Your task to perform on an android device: View the shopping cart on target. Search for asus zenbook on target, select the first entry, and add it to the cart. Image 0: 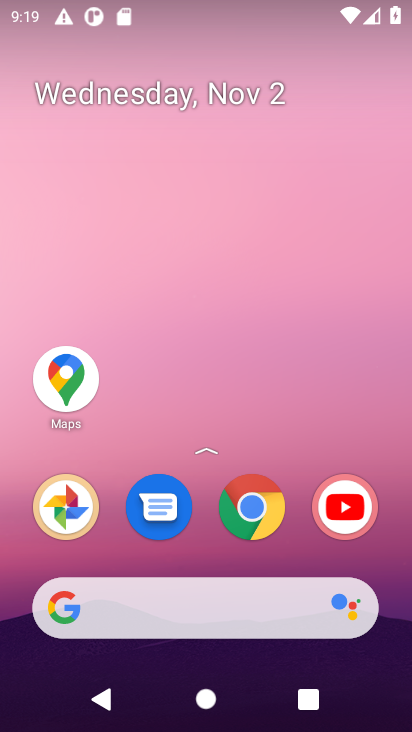
Step 0: click (187, 596)
Your task to perform on an android device: View the shopping cart on target. Search for asus zenbook on target, select the first entry, and add it to the cart. Image 1: 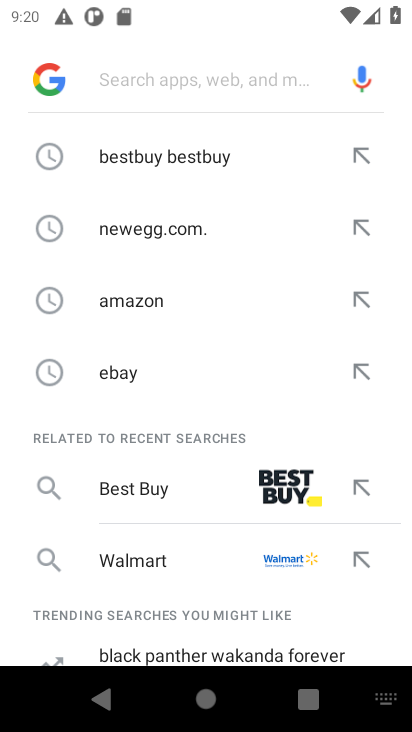
Step 1: type "ausu zenbook"
Your task to perform on an android device: View the shopping cart on target. Search for asus zenbook on target, select the first entry, and add it to the cart. Image 2: 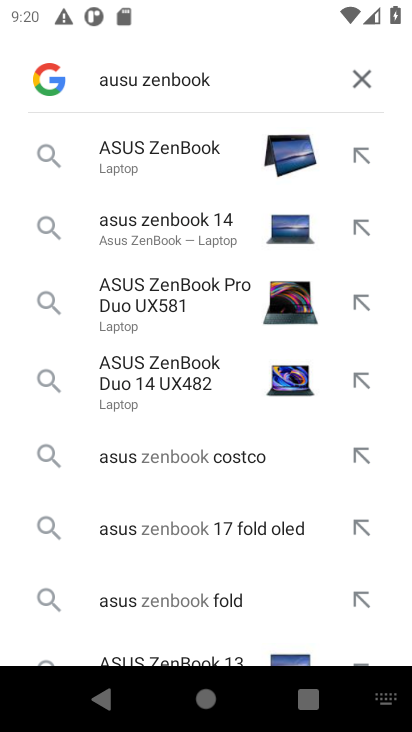
Step 2: click (136, 160)
Your task to perform on an android device: View the shopping cart on target. Search for asus zenbook on target, select the first entry, and add it to the cart. Image 3: 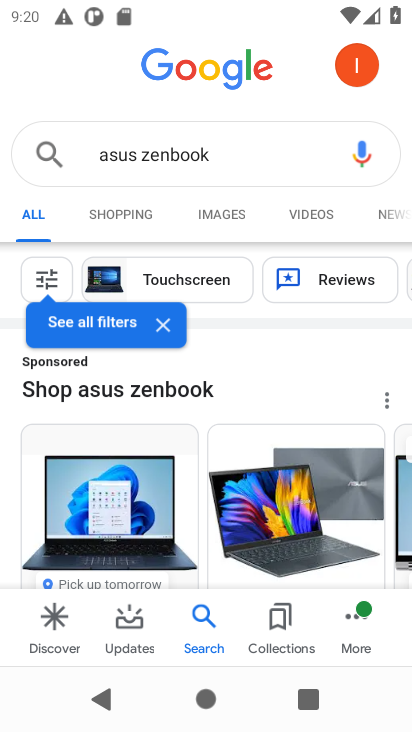
Step 3: click (122, 512)
Your task to perform on an android device: View the shopping cart on target. Search for asus zenbook on target, select the first entry, and add it to the cart. Image 4: 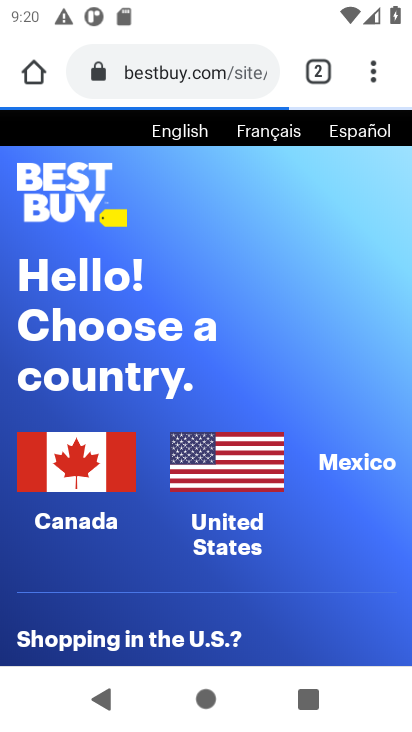
Step 4: drag from (247, 519) to (259, 183)
Your task to perform on an android device: View the shopping cart on target. Search for asus zenbook on target, select the first entry, and add it to the cart. Image 5: 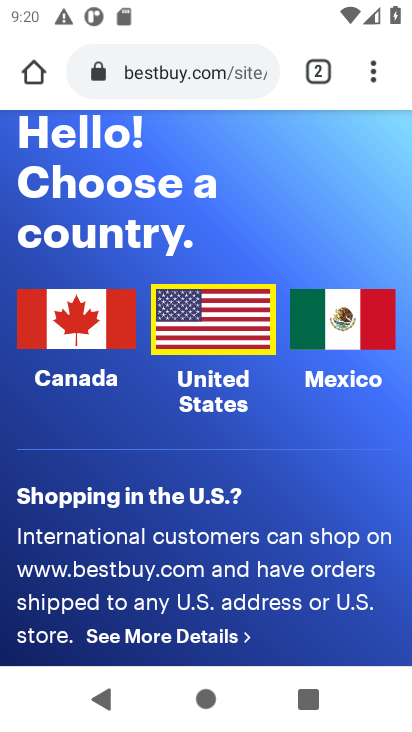
Step 5: click (179, 578)
Your task to perform on an android device: View the shopping cart on target. Search for asus zenbook on target, select the first entry, and add it to the cart. Image 6: 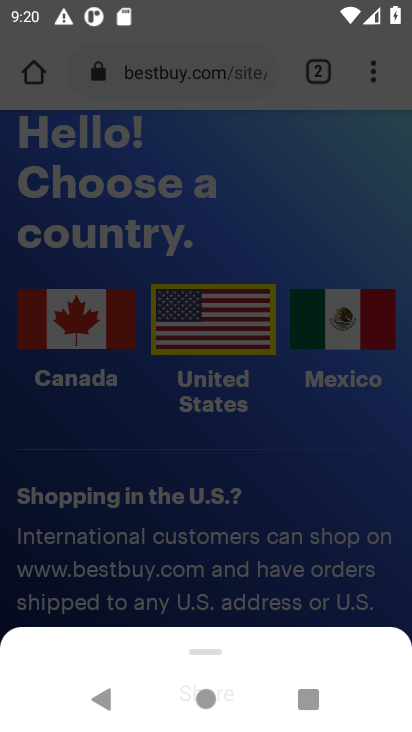
Step 6: click (179, 347)
Your task to perform on an android device: View the shopping cart on target. Search for asus zenbook on target, select the first entry, and add it to the cart. Image 7: 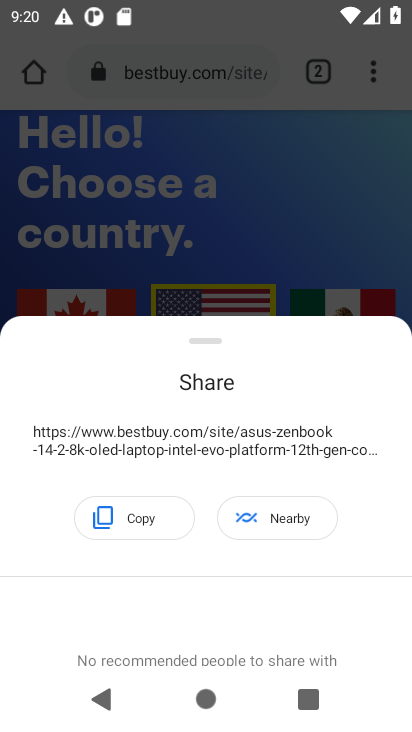
Step 7: click (266, 251)
Your task to perform on an android device: View the shopping cart on target. Search for asus zenbook on target, select the first entry, and add it to the cart. Image 8: 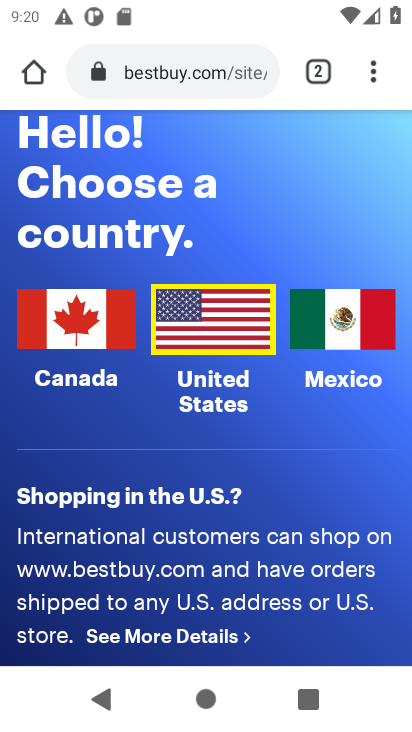
Step 8: click (233, 301)
Your task to perform on an android device: View the shopping cart on target. Search for asus zenbook on target, select the first entry, and add it to the cart. Image 9: 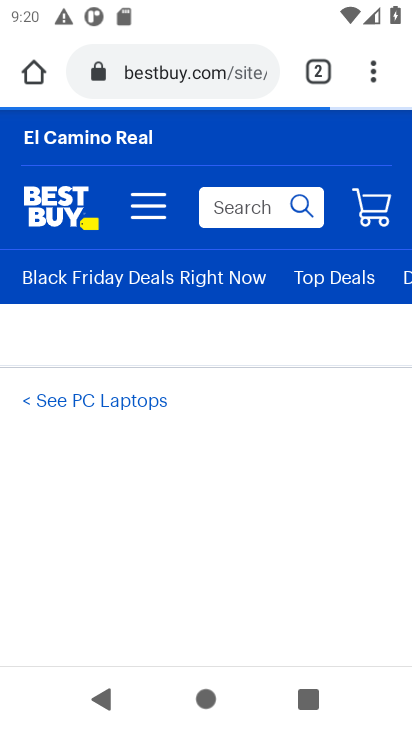
Step 9: task complete